Your task to perform on an android device: find photos in the google photos app Image 0: 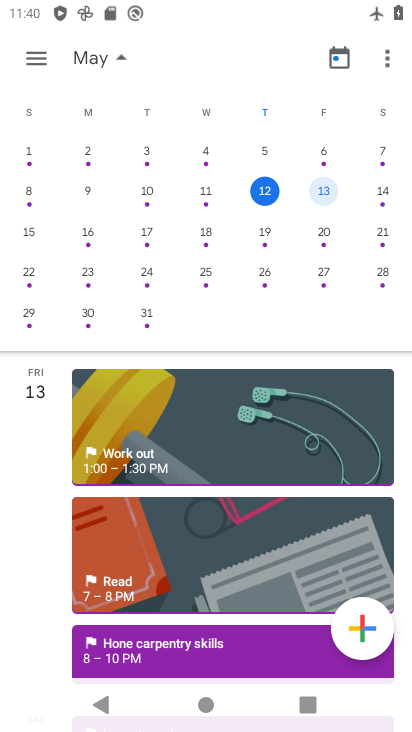
Step 0: press home button
Your task to perform on an android device: find photos in the google photos app Image 1: 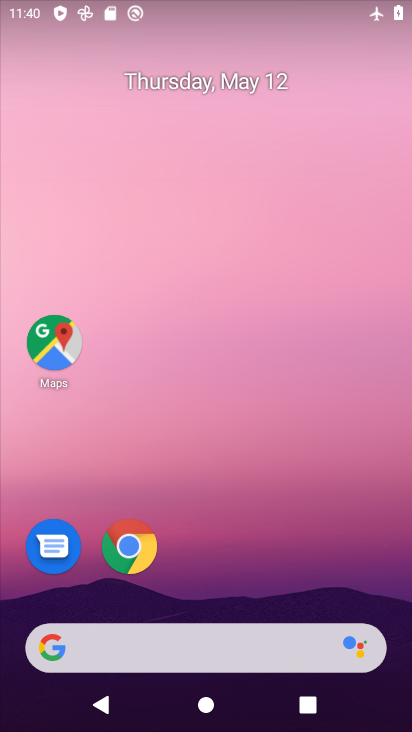
Step 1: drag from (223, 711) to (257, 130)
Your task to perform on an android device: find photos in the google photos app Image 2: 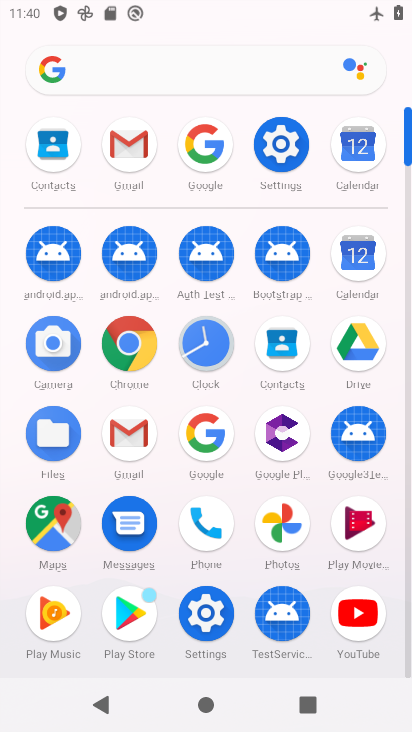
Step 2: click (285, 525)
Your task to perform on an android device: find photos in the google photos app Image 3: 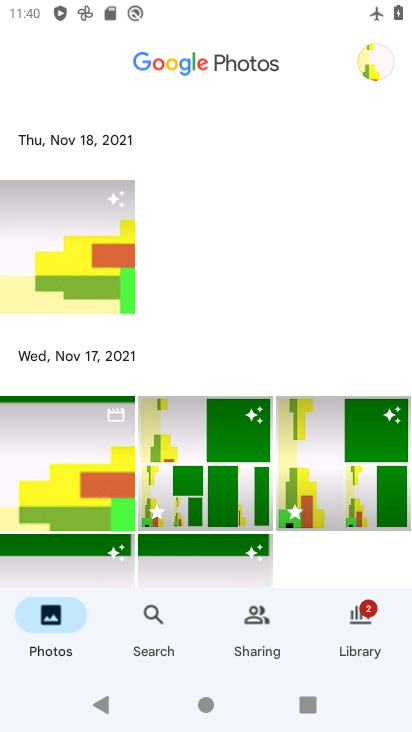
Step 3: click (53, 249)
Your task to perform on an android device: find photos in the google photos app Image 4: 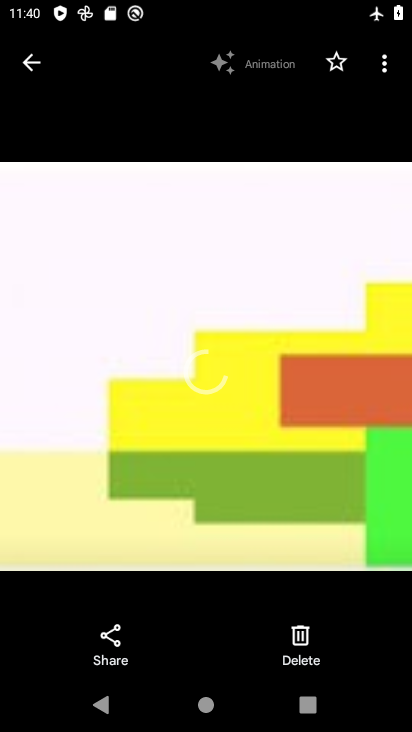
Step 4: task complete